Your task to perform on an android device: open app "Facebook Lite" (install if not already installed) Image 0: 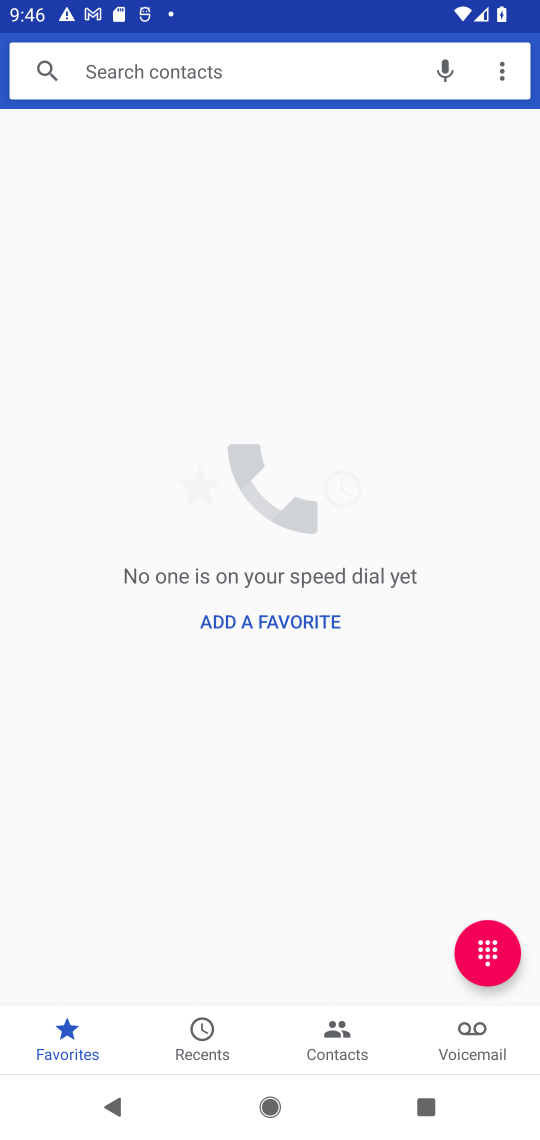
Step 0: press home button
Your task to perform on an android device: open app "Facebook Lite" (install if not already installed) Image 1: 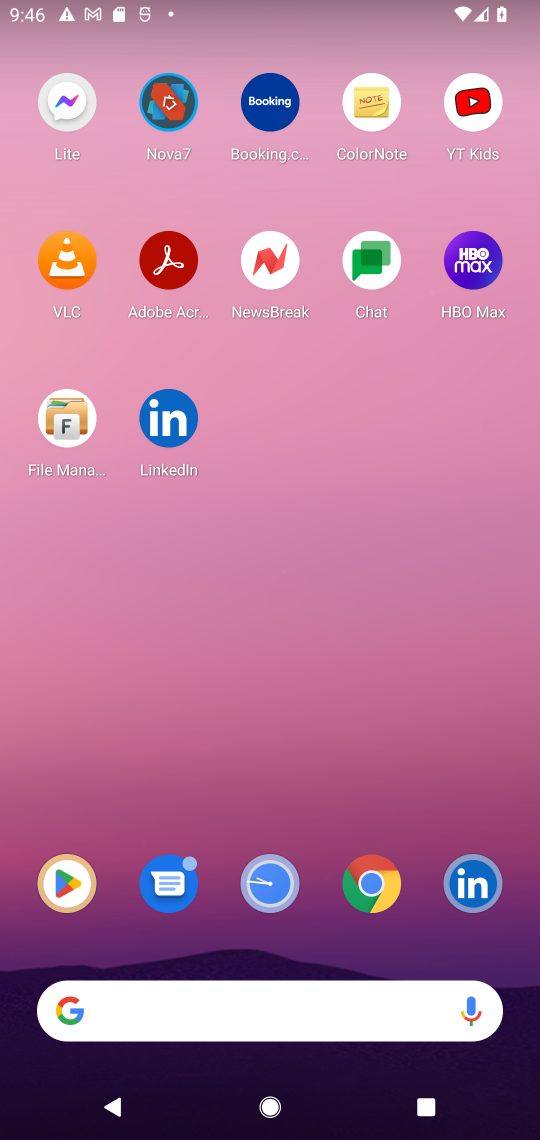
Step 1: click (64, 877)
Your task to perform on an android device: open app "Facebook Lite" (install if not already installed) Image 2: 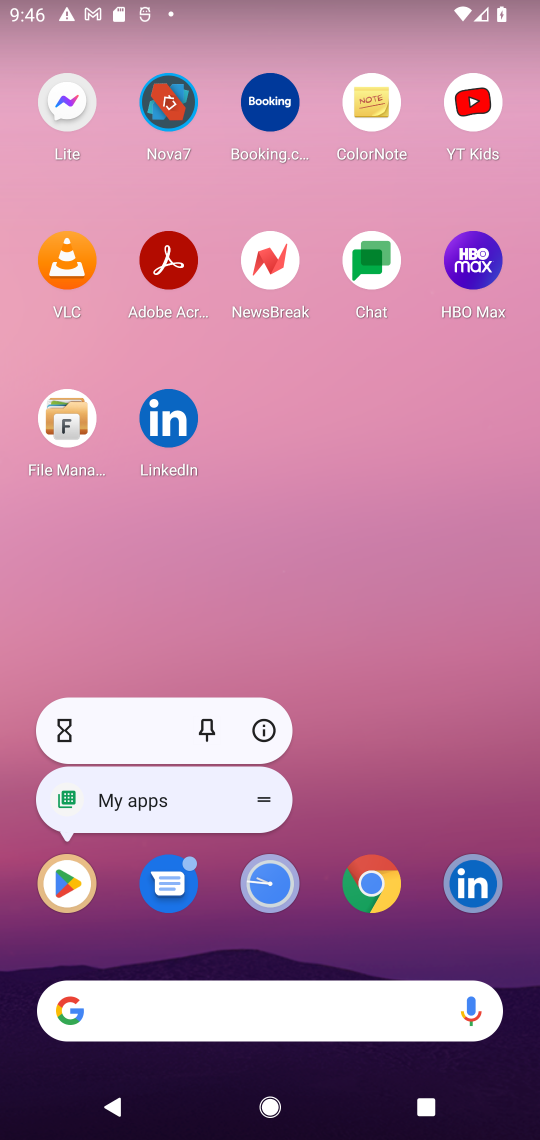
Step 2: click (67, 876)
Your task to perform on an android device: open app "Facebook Lite" (install if not already installed) Image 3: 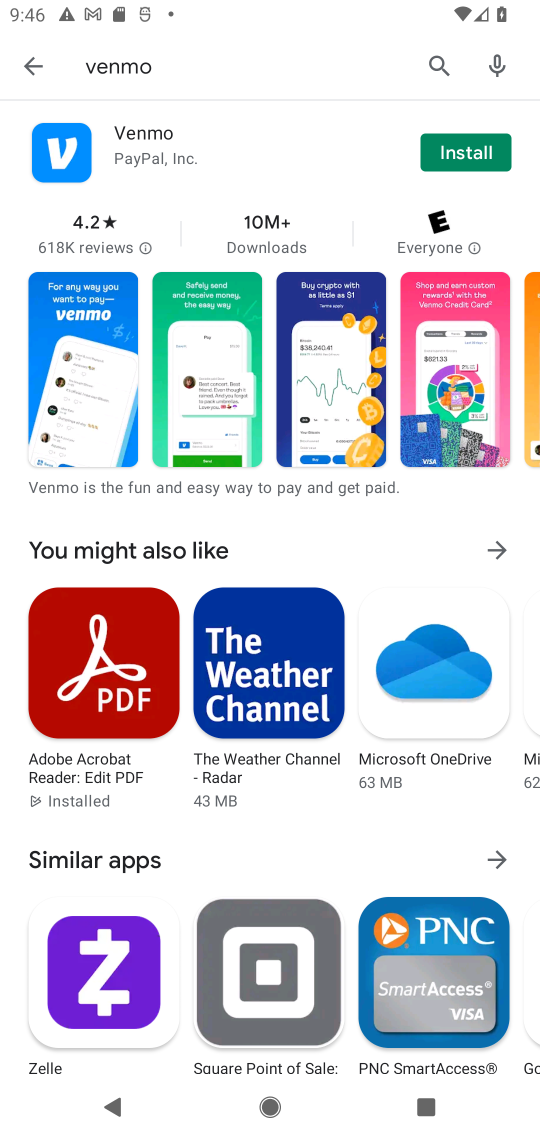
Step 3: click (211, 64)
Your task to perform on an android device: open app "Facebook Lite" (install if not already installed) Image 4: 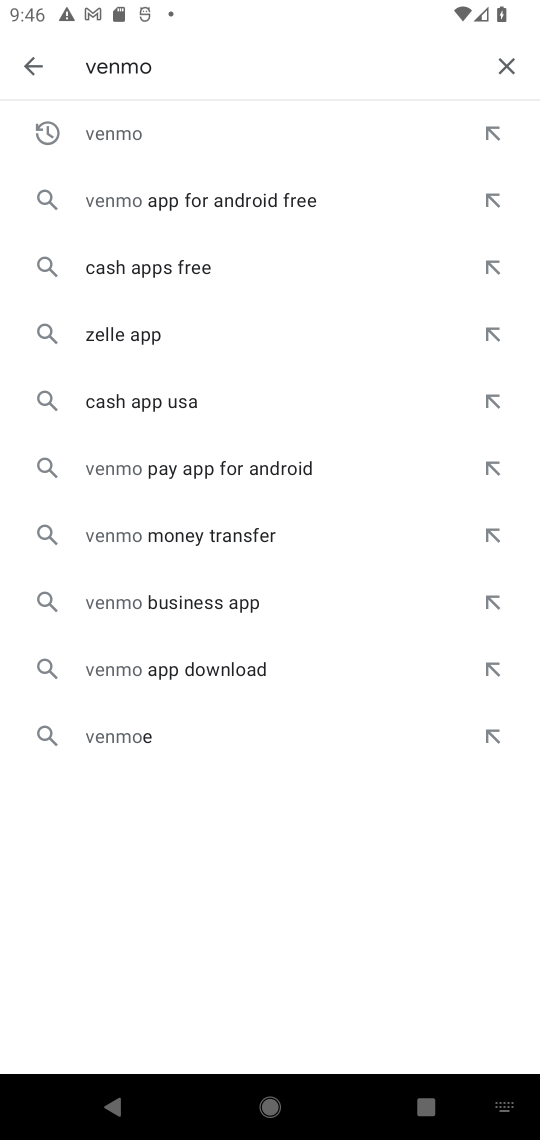
Step 4: click (494, 61)
Your task to perform on an android device: open app "Facebook Lite" (install if not already installed) Image 5: 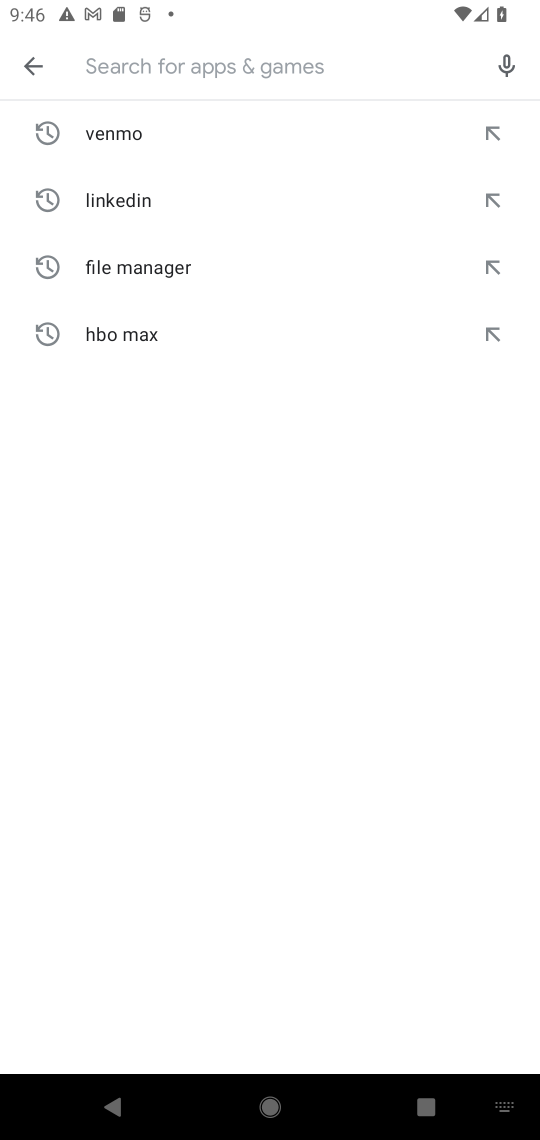
Step 5: type "facebook lite"
Your task to perform on an android device: open app "Facebook Lite" (install if not already installed) Image 6: 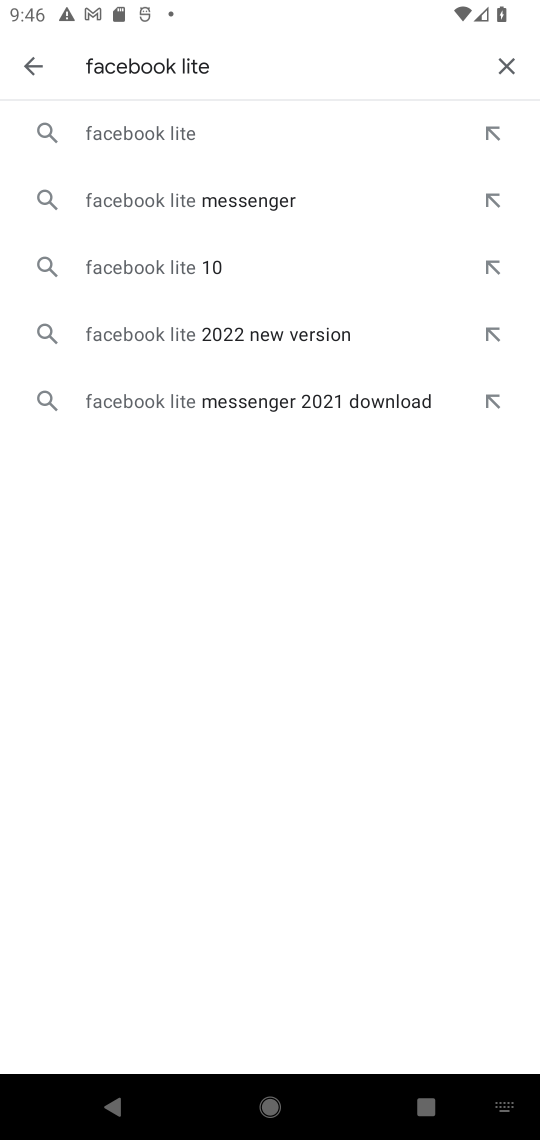
Step 6: click (168, 138)
Your task to perform on an android device: open app "Facebook Lite" (install if not already installed) Image 7: 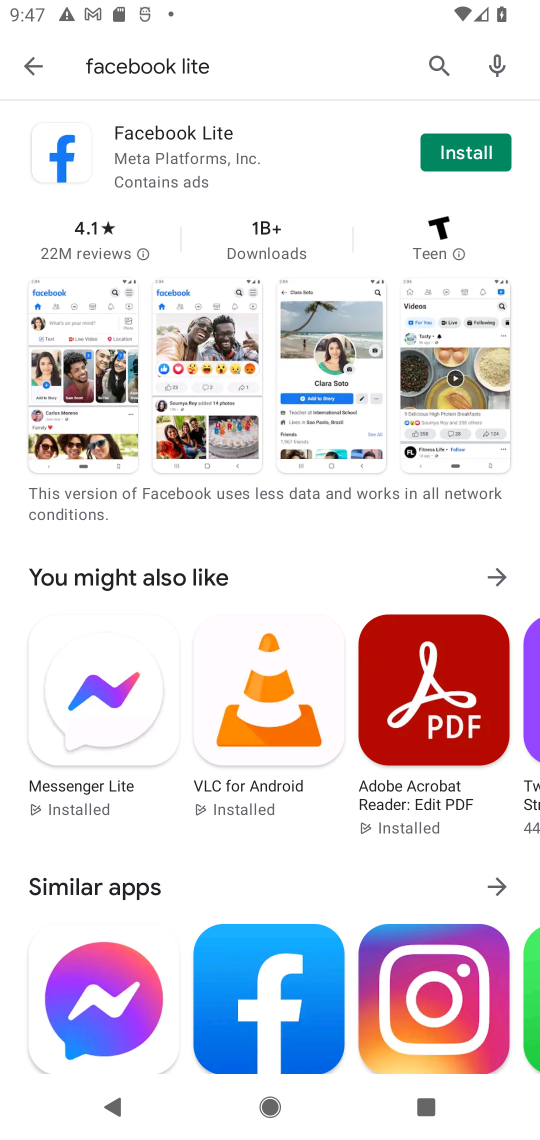
Step 7: click (473, 151)
Your task to perform on an android device: open app "Facebook Lite" (install if not already installed) Image 8: 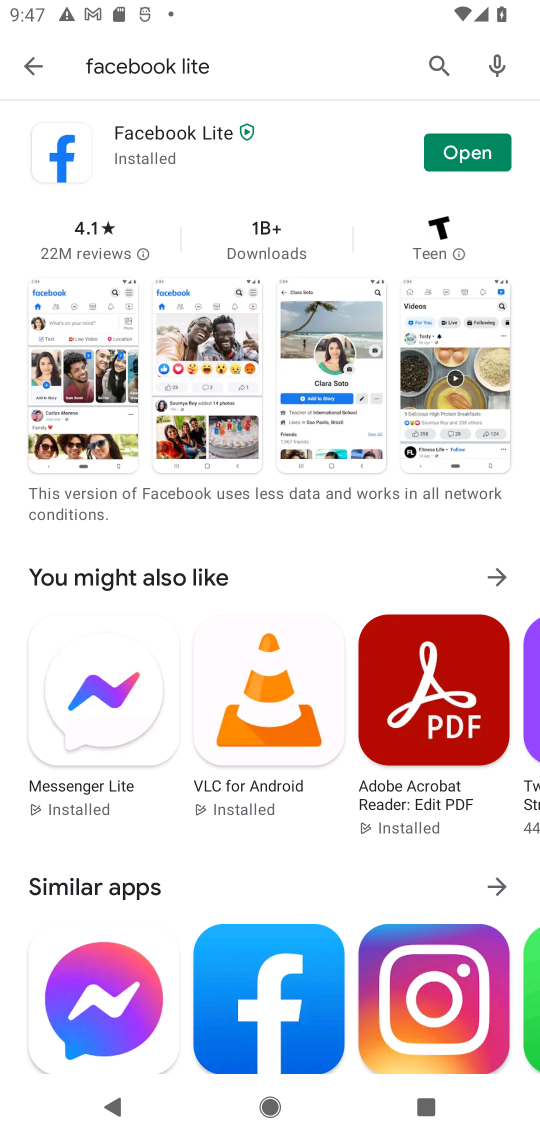
Step 8: click (470, 151)
Your task to perform on an android device: open app "Facebook Lite" (install if not already installed) Image 9: 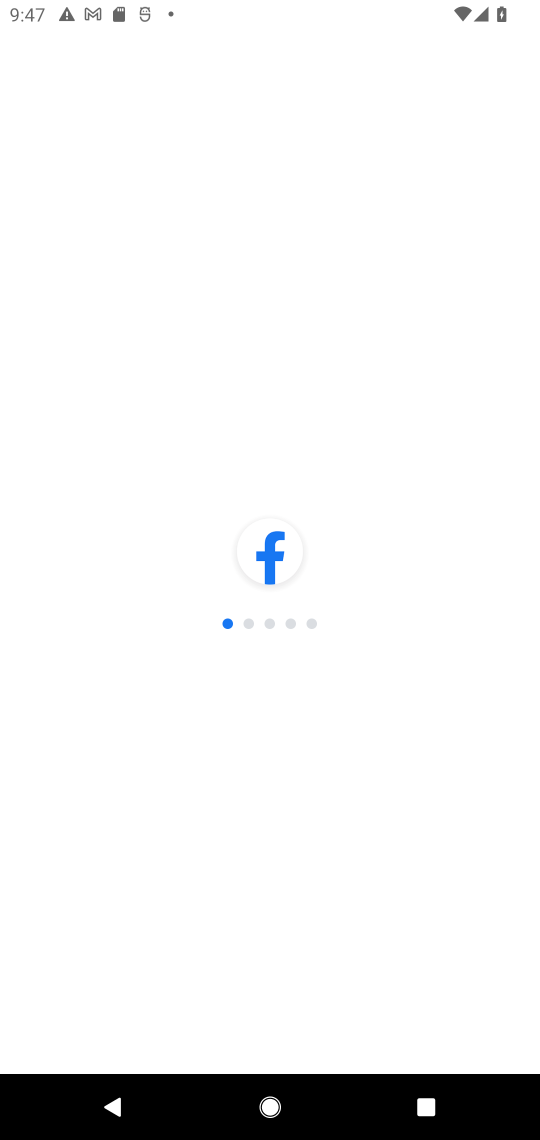
Step 9: click (342, 789)
Your task to perform on an android device: open app "Facebook Lite" (install if not already installed) Image 10: 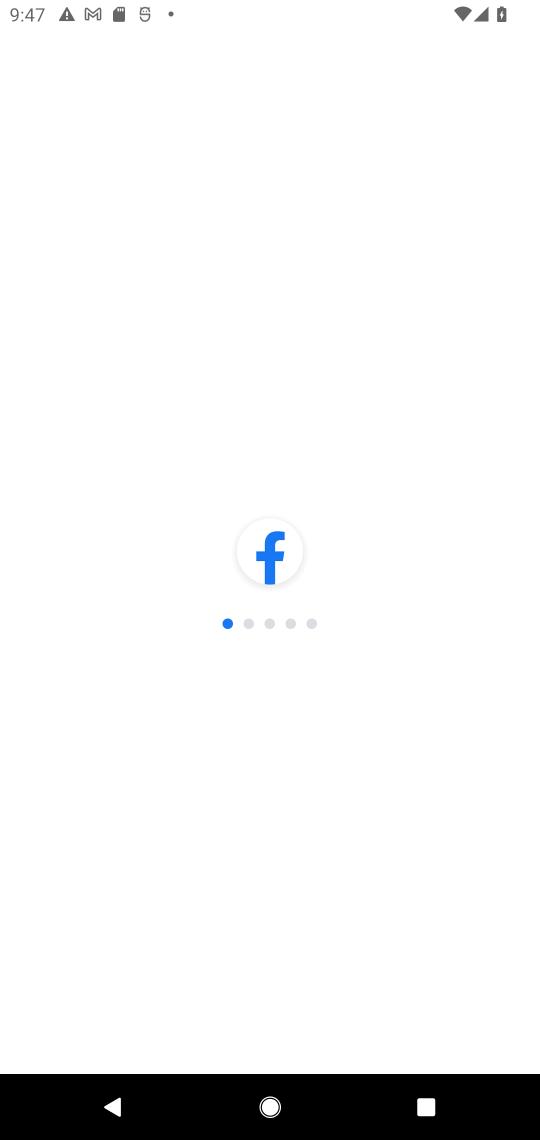
Step 10: click (372, 838)
Your task to perform on an android device: open app "Facebook Lite" (install if not already installed) Image 11: 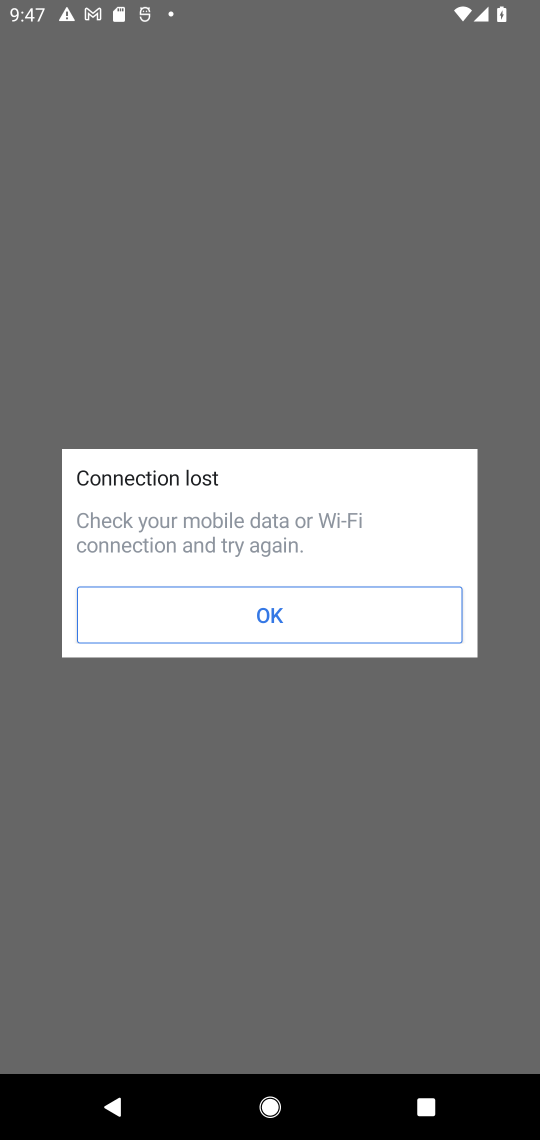
Step 11: click (306, 608)
Your task to perform on an android device: open app "Facebook Lite" (install if not already installed) Image 12: 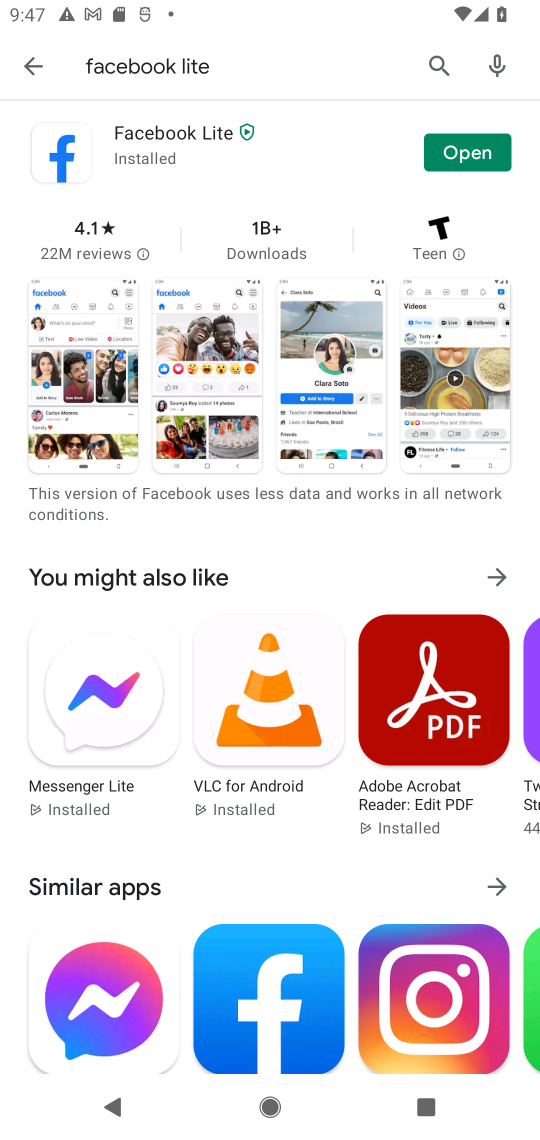
Step 12: task complete